Your task to perform on an android device: When is my next appointment? Image 0: 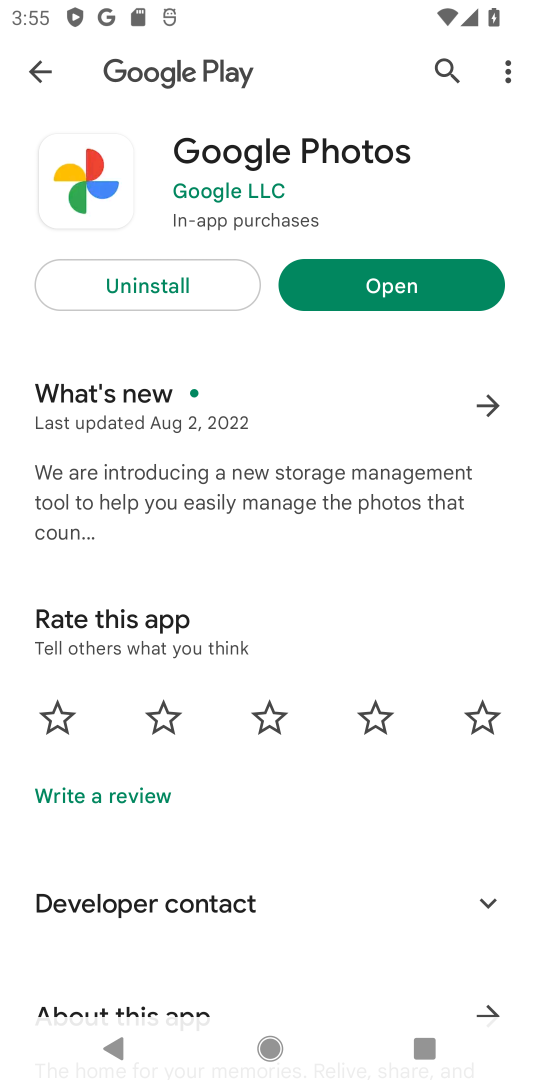
Step 0: press home button
Your task to perform on an android device: When is my next appointment? Image 1: 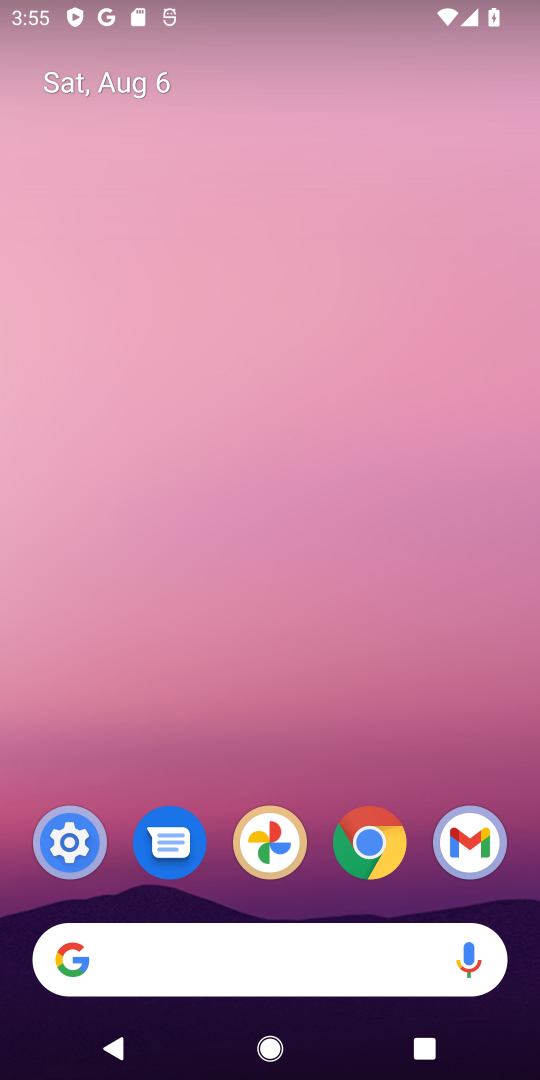
Step 1: drag from (512, 1000) to (349, 244)
Your task to perform on an android device: When is my next appointment? Image 2: 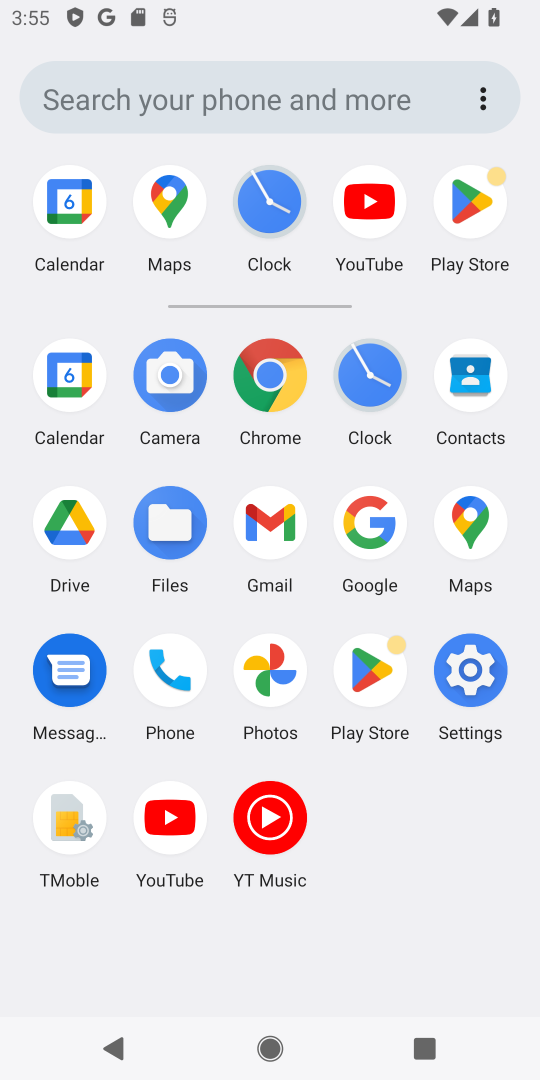
Step 2: click (60, 390)
Your task to perform on an android device: When is my next appointment? Image 3: 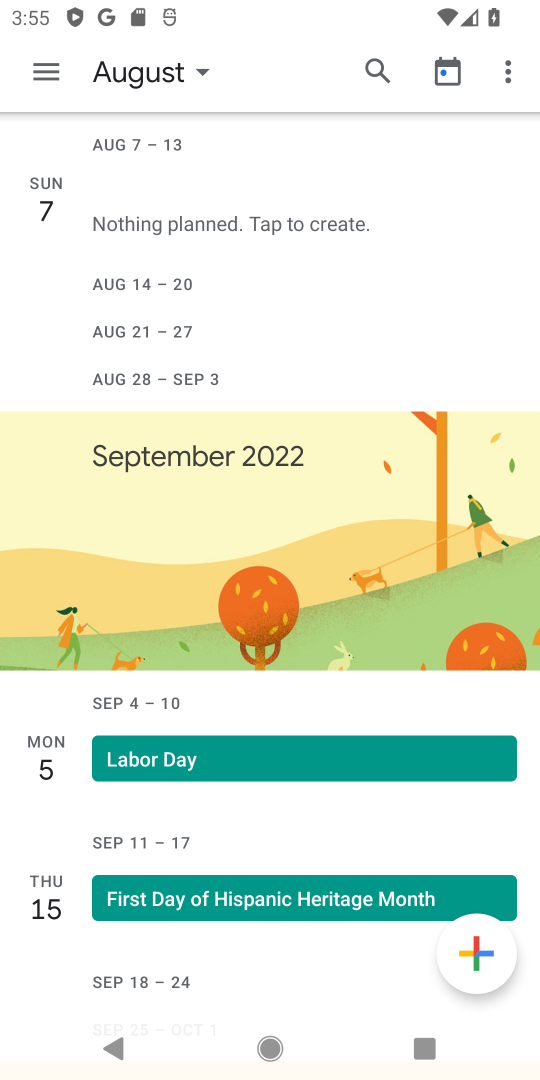
Step 3: click (62, 71)
Your task to perform on an android device: When is my next appointment? Image 4: 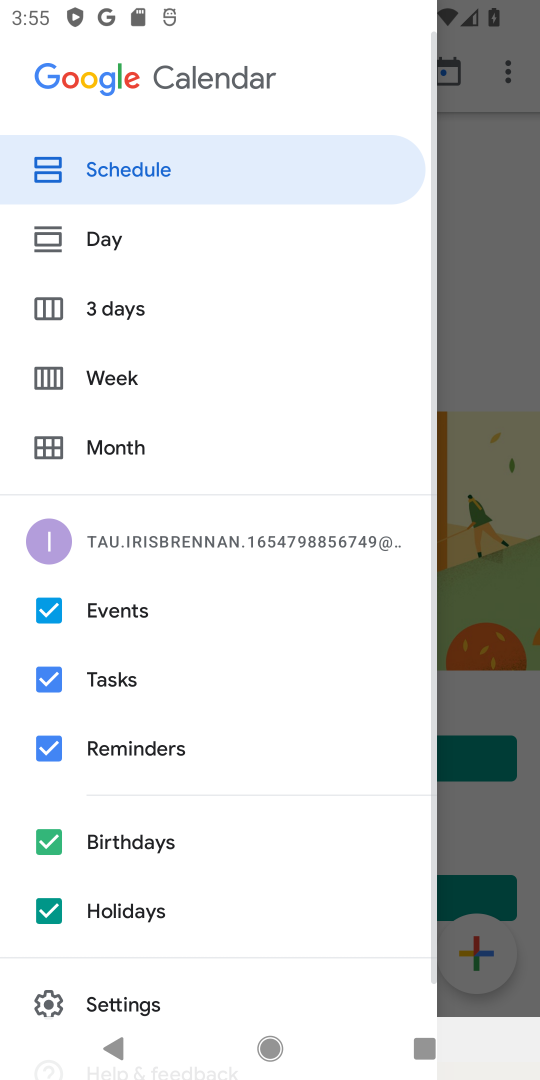
Step 4: click (132, 174)
Your task to perform on an android device: When is my next appointment? Image 5: 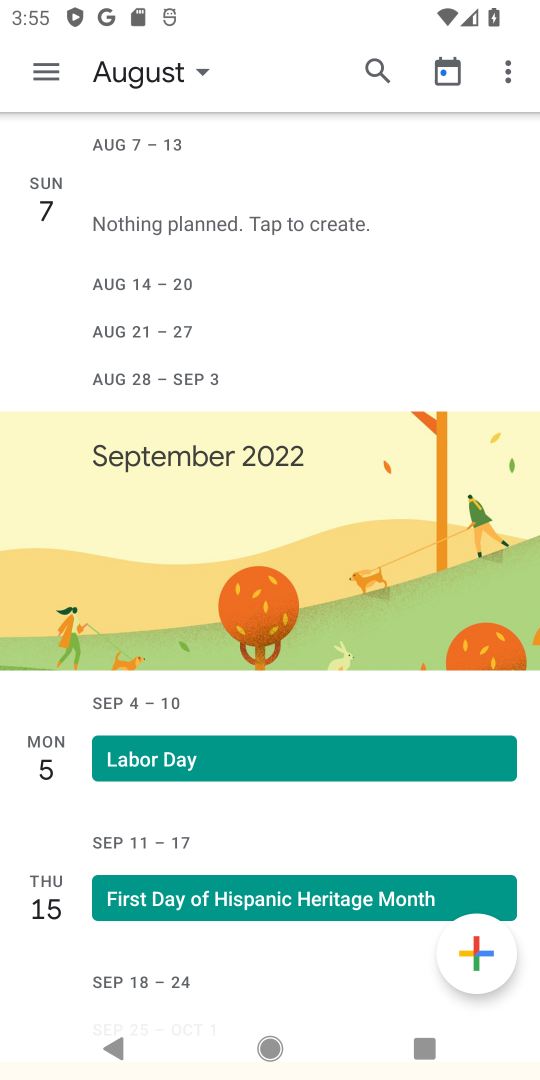
Step 5: click (47, 57)
Your task to perform on an android device: When is my next appointment? Image 6: 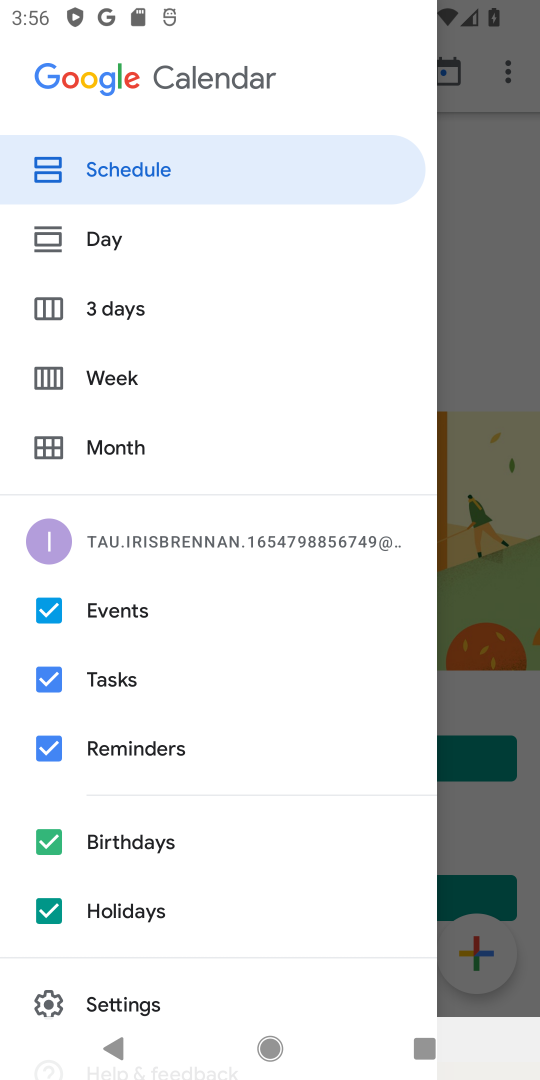
Step 6: click (51, 910)
Your task to perform on an android device: When is my next appointment? Image 7: 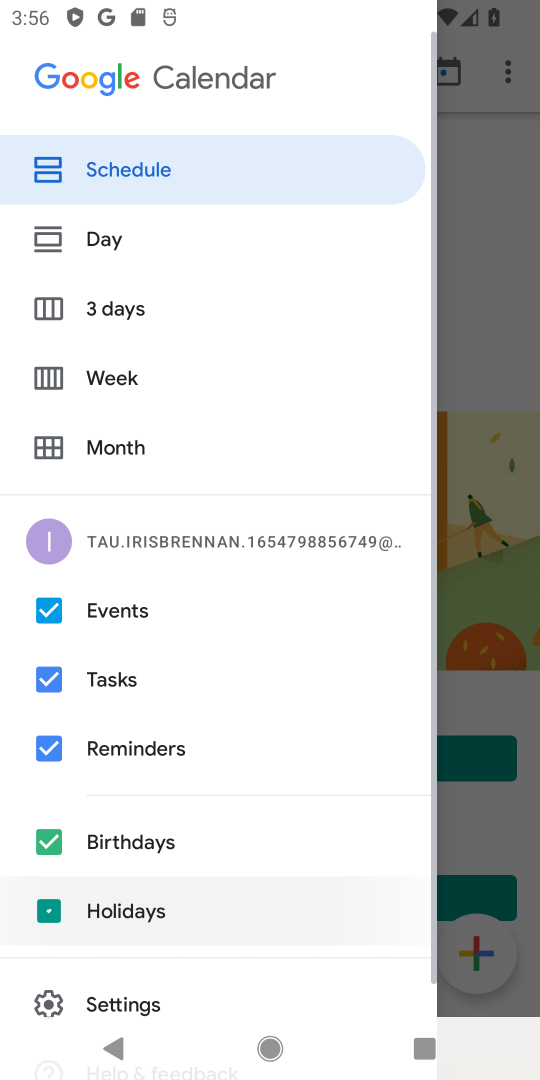
Step 7: click (49, 841)
Your task to perform on an android device: When is my next appointment? Image 8: 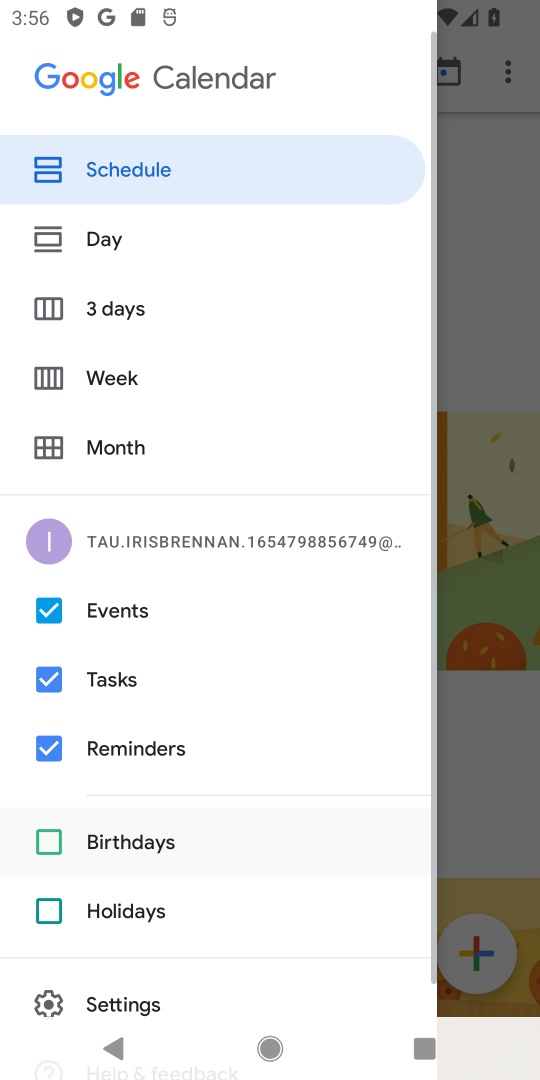
Step 8: click (56, 734)
Your task to perform on an android device: When is my next appointment? Image 9: 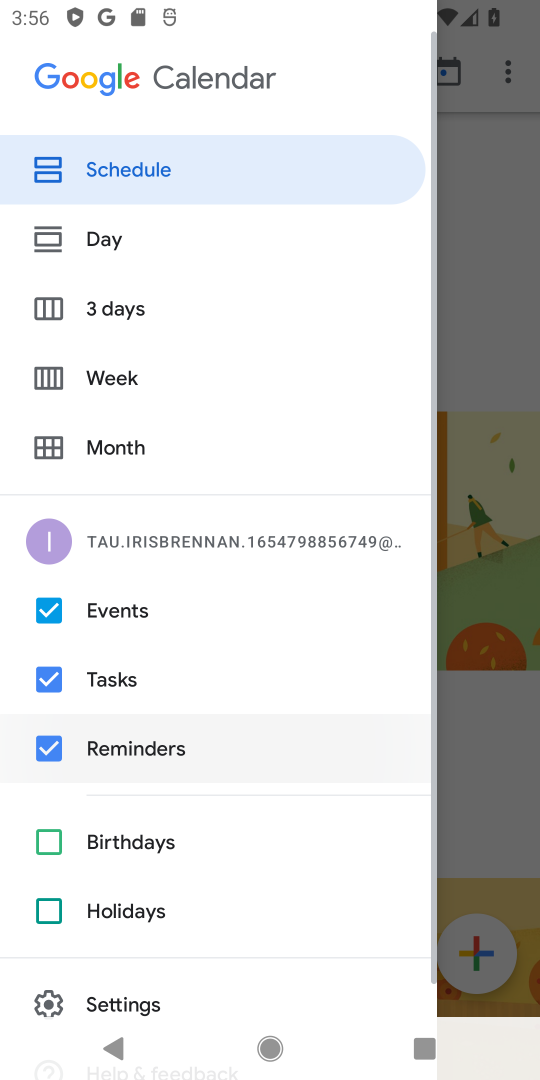
Step 9: click (56, 673)
Your task to perform on an android device: When is my next appointment? Image 10: 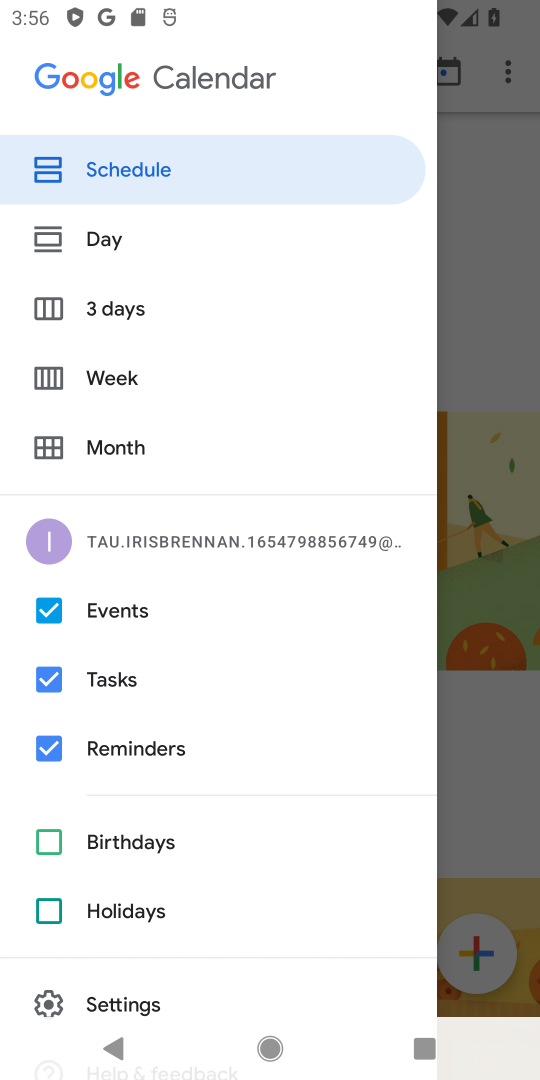
Step 10: click (41, 737)
Your task to perform on an android device: When is my next appointment? Image 11: 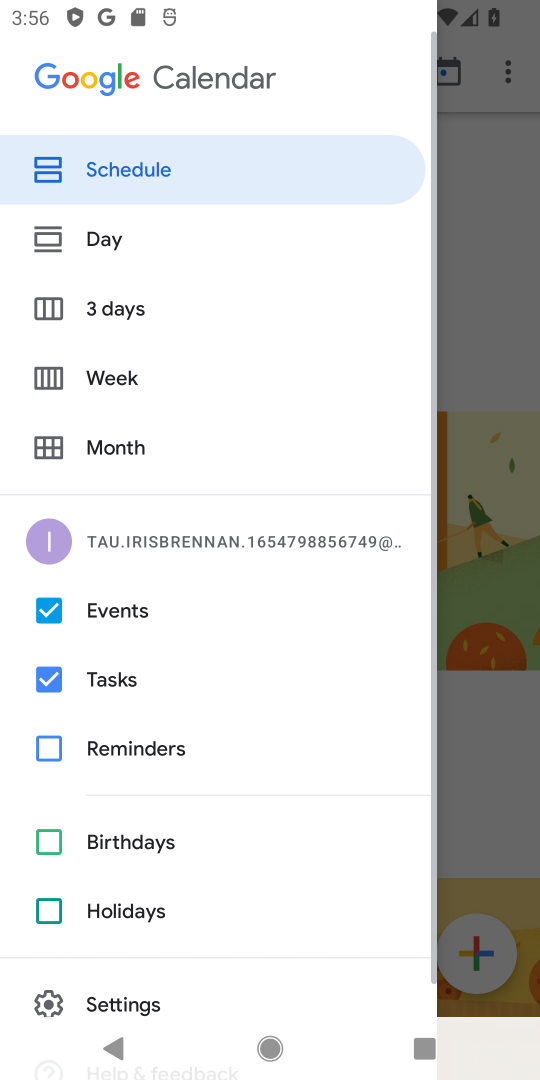
Step 11: click (46, 673)
Your task to perform on an android device: When is my next appointment? Image 12: 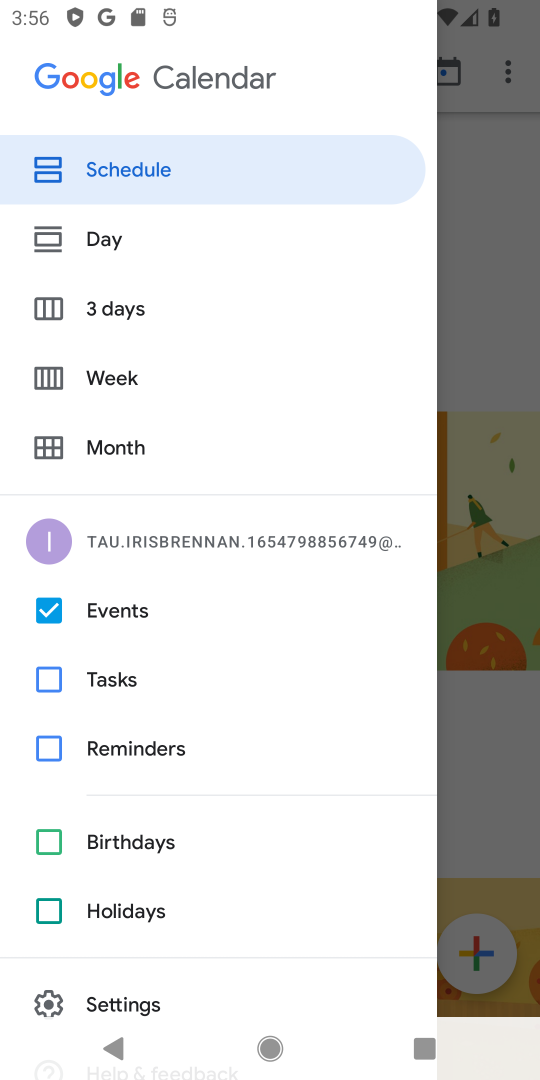
Step 12: click (518, 274)
Your task to perform on an android device: When is my next appointment? Image 13: 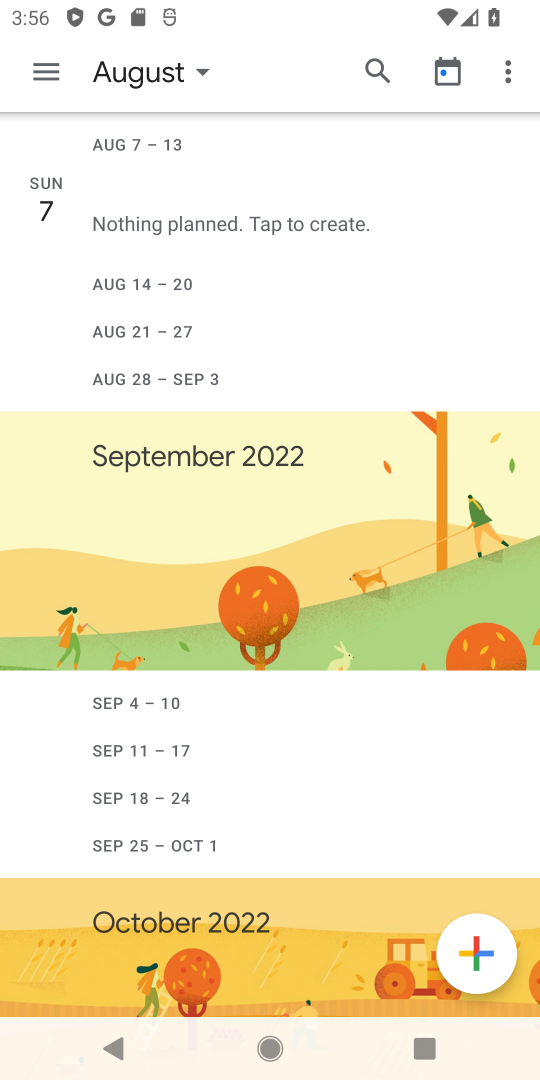
Step 13: click (35, 63)
Your task to perform on an android device: When is my next appointment? Image 14: 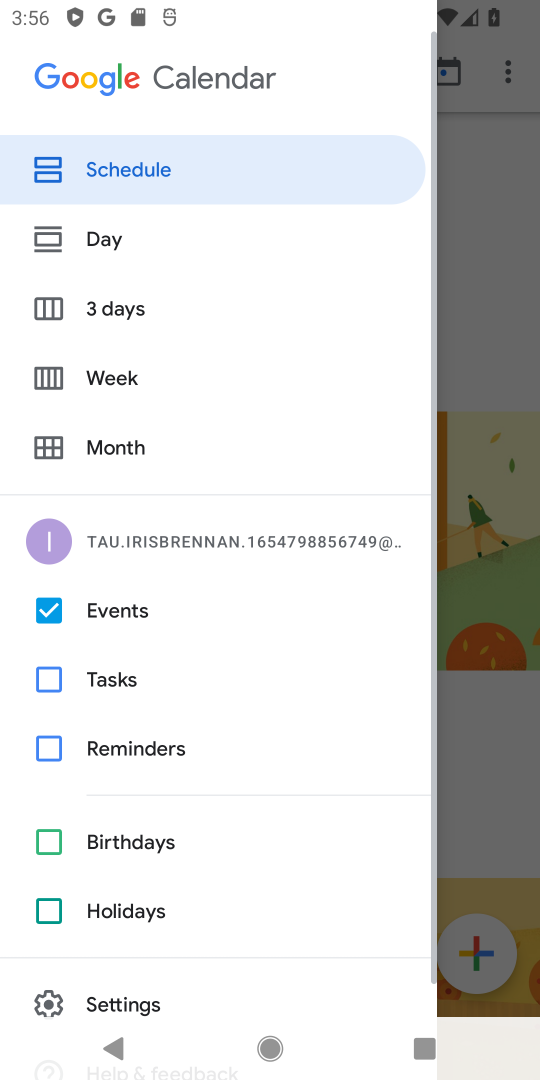
Step 14: click (110, 176)
Your task to perform on an android device: When is my next appointment? Image 15: 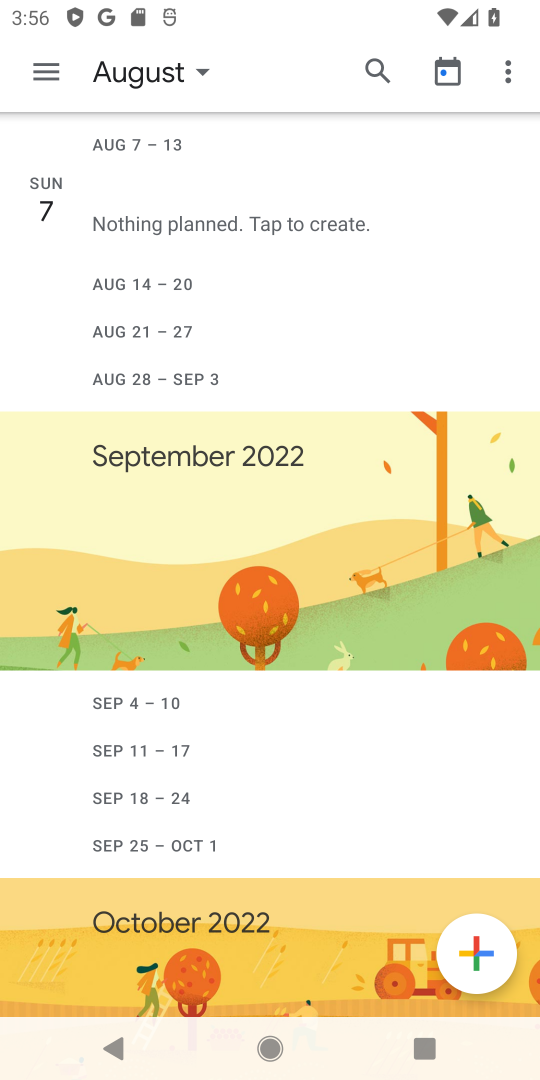
Step 15: task complete